Your task to perform on an android device: toggle location history Image 0: 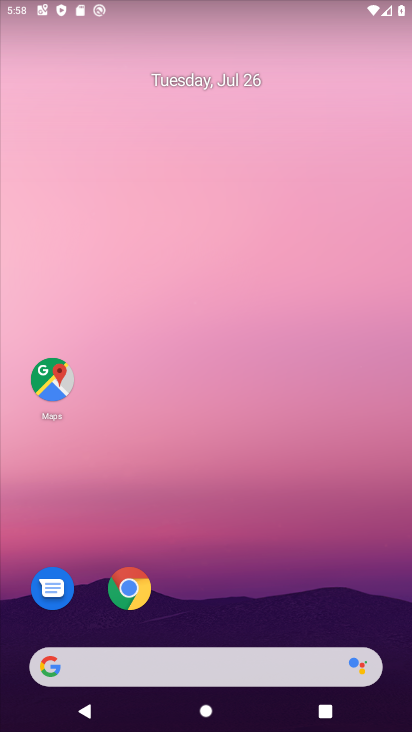
Step 0: drag from (164, 631) to (127, 1)
Your task to perform on an android device: toggle location history Image 1: 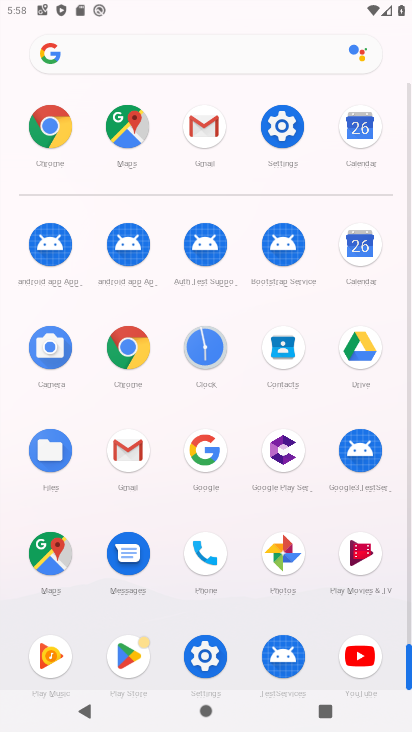
Step 1: click (296, 135)
Your task to perform on an android device: toggle location history Image 2: 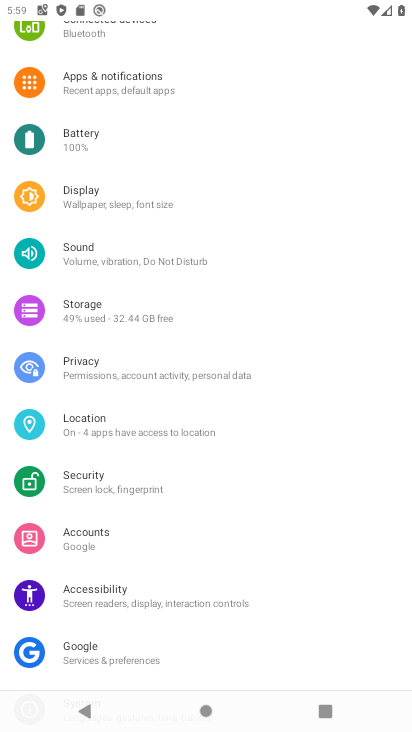
Step 2: click (112, 422)
Your task to perform on an android device: toggle location history Image 3: 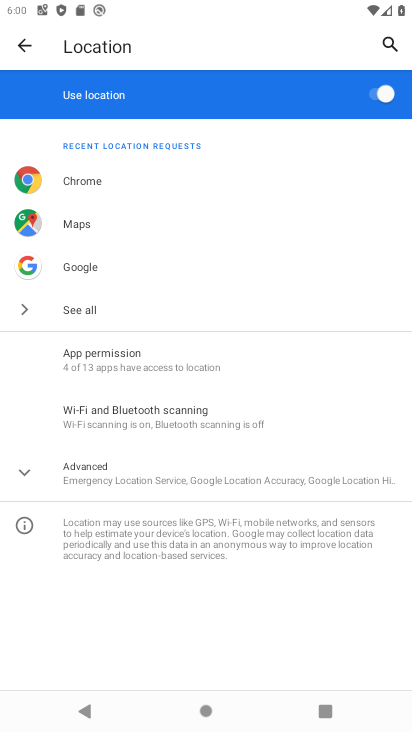
Step 3: click (156, 479)
Your task to perform on an android device: toggle location history Image 4: 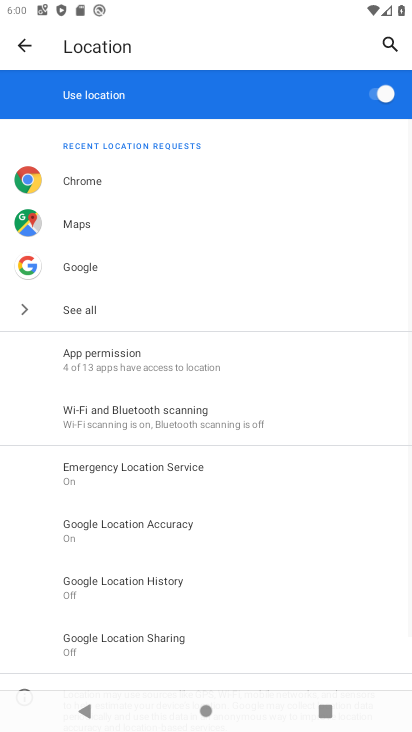
Step 4: click (170, 577)
Your task to perform on an android device: toggle location history Image 5: 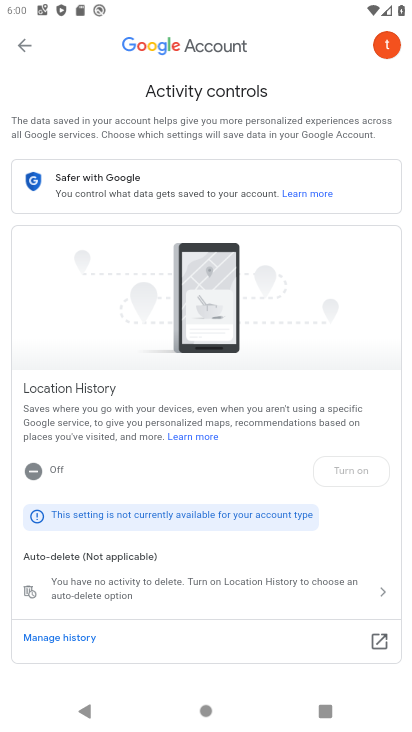
Step 5: task complete